Your task to perform on an android device: turn off smart reply in the gmail app Image 0: 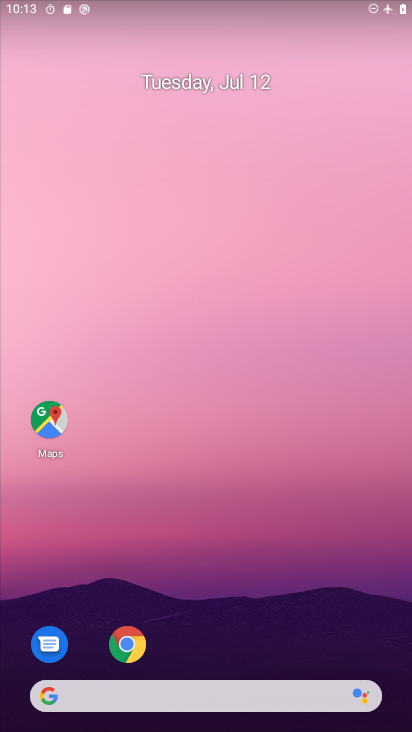
Step 0: drag from (206, 631) to (169, 142)
Your task to perform on an android device: turn off smart reply in the gmail app Image 1: 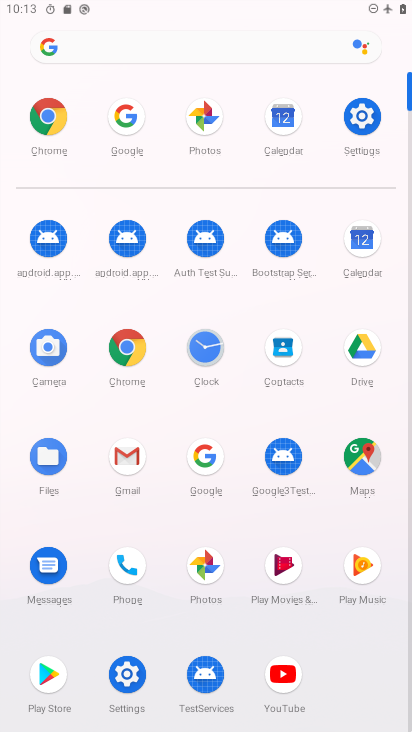
Step 1: click (138, 438)
Your task to perform on an android device: turn off smart reply in the gmail app Image 2: 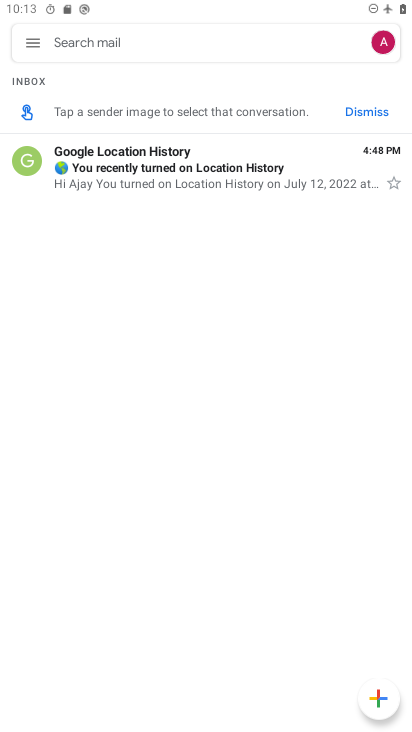
Step 2: click (45, 44)
Your task to perform on an android device: turn off smart reply in the gmail app Image 3: 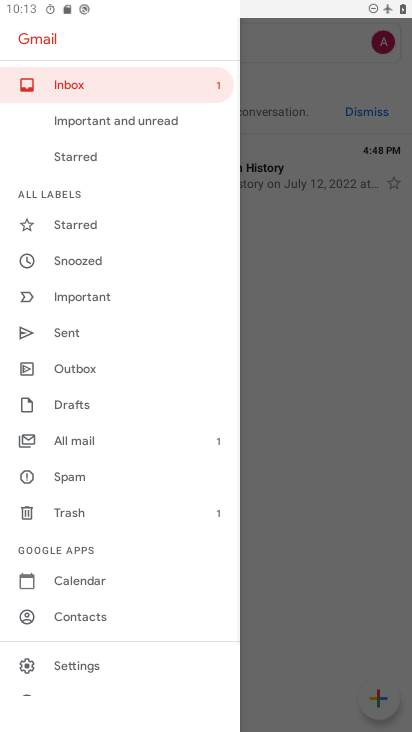
Step 3: click (87, 662)
Your task to perform on an android device: turn off smart reply in the gmail app Image 4: 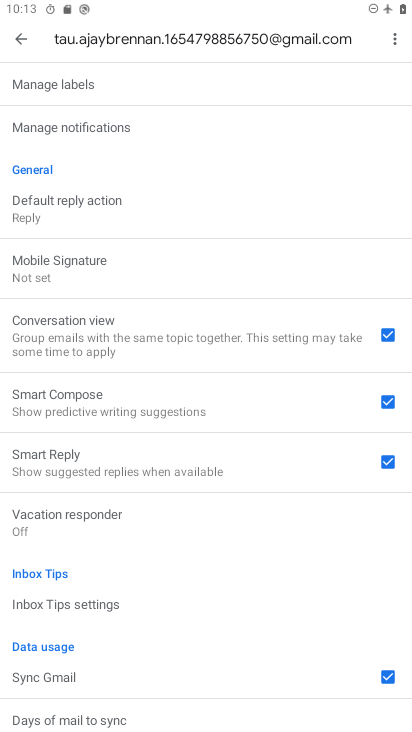
Step 4: click (381, 452)
Your task to perform on an android device: turn off smart reply in the gmail app Image 5: 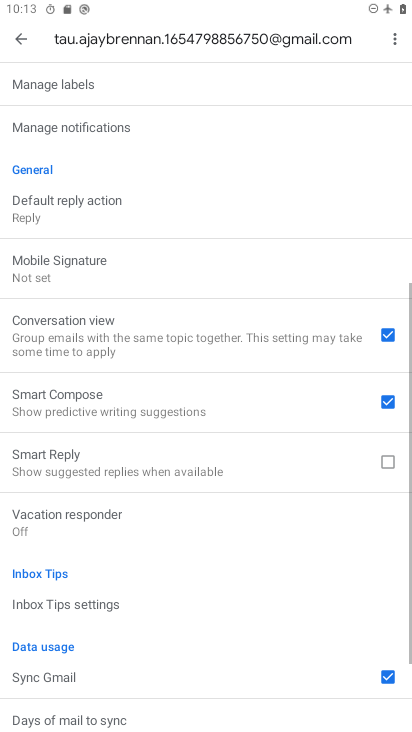
Step 5: task complete